Your task to perform on an android device: see creations saved in the google photos Image 0: 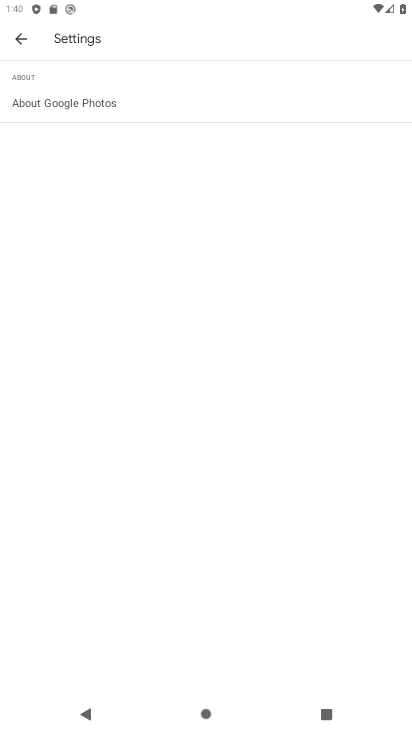
Step 0: click (12, 40)
Your task to perform on an android device: see creations saved in the google photos Image 1: 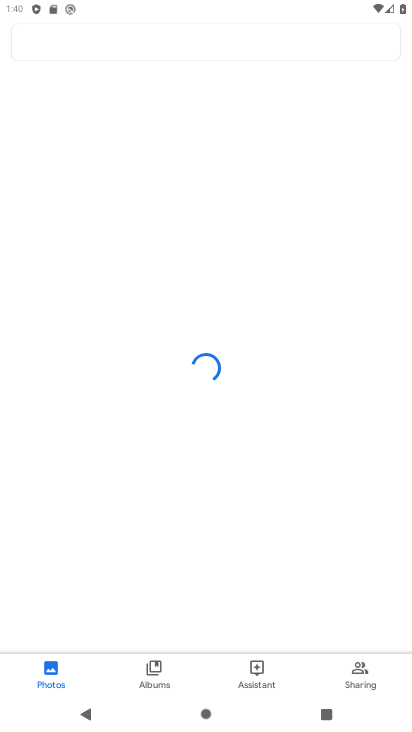
Step 1: click (110, 47)
Your task to perform on an android device: see creations saved in the google photos Image 2: 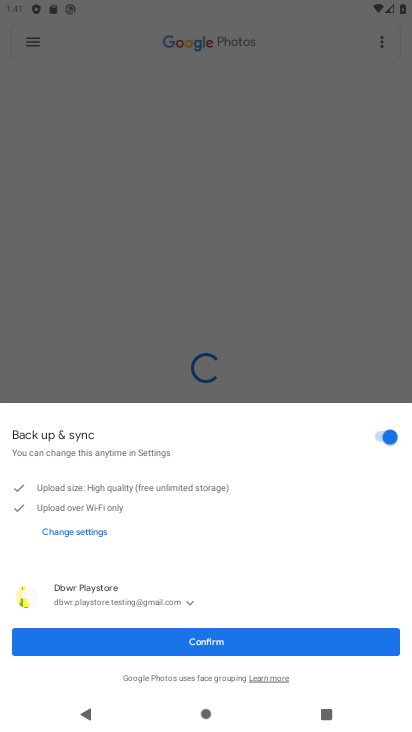
Step 2: click (248, 643)
Your task to perform on an android device: see creations saved in the google photos Image 3: 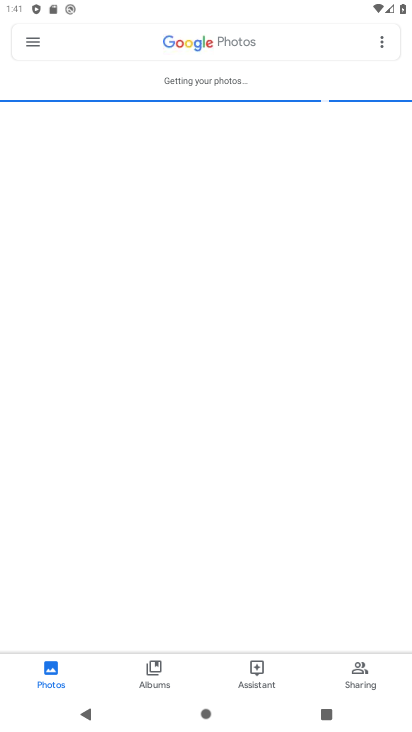
Step 3: click (168, 48)
Your task to perform on an android device: see creations saved in the google photos Image 4: 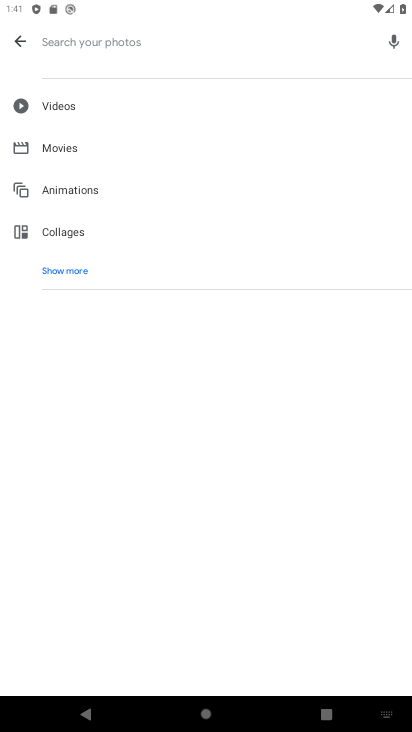
Step 4: click (82, 269)
Your task to perform on an android device: see creations saved in the google photos Image 5: 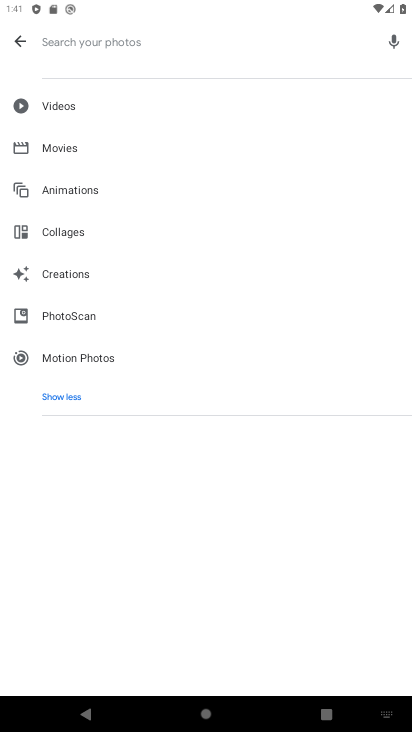
Step 5: click (81, 265)
Your task to perform on an android device: see creations saved in the google photos Image 6: 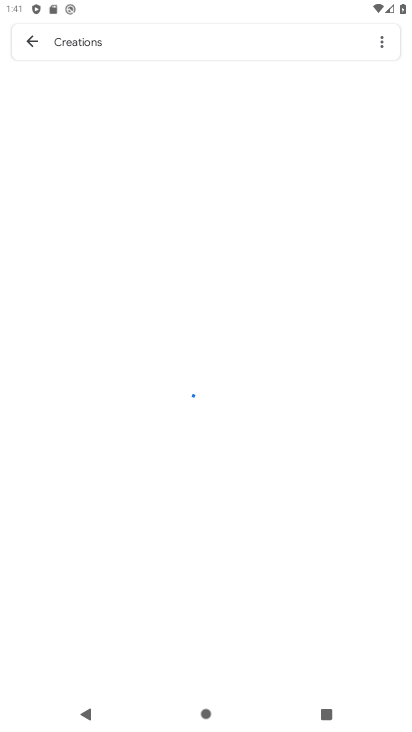
Step 6: task complete